Your task to perform on an android device: open a new tab in the chrome app Image 0: 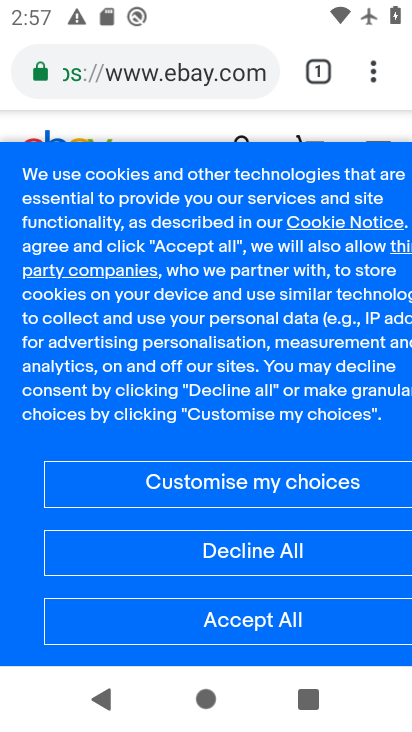
Step 0: press home button
Your task to perform on an android device: open a new tab in the chrome app Image 1: 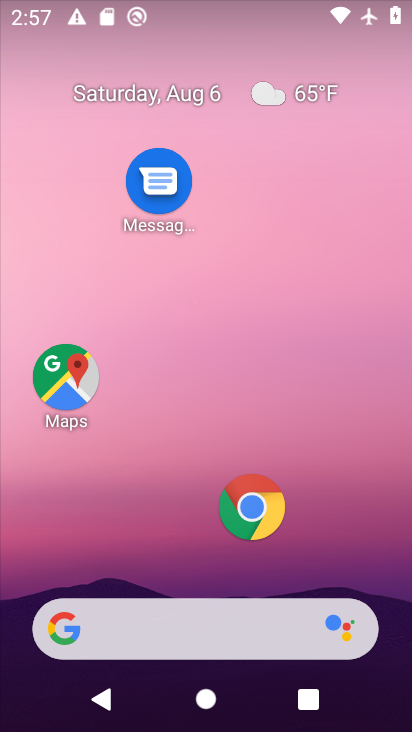
Step 1: drag from (189, 564) to (259, 102)
Your task to perform on an android device: open a new tab in the chrome app Image 2: 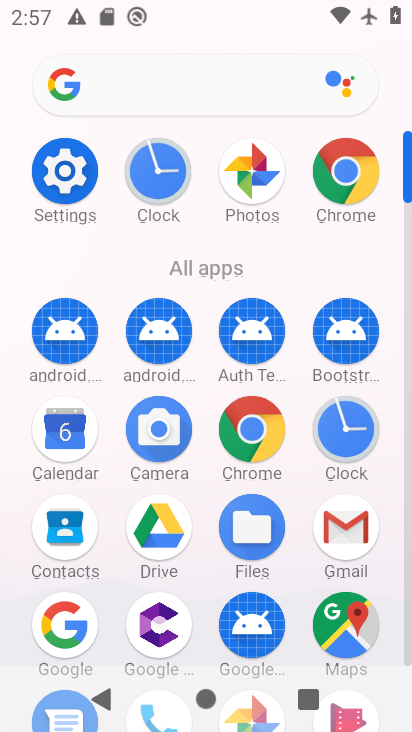
Step 2: click (259, 423)
Your task to perform on an android device: open a new tab in the chrome app Image 3: 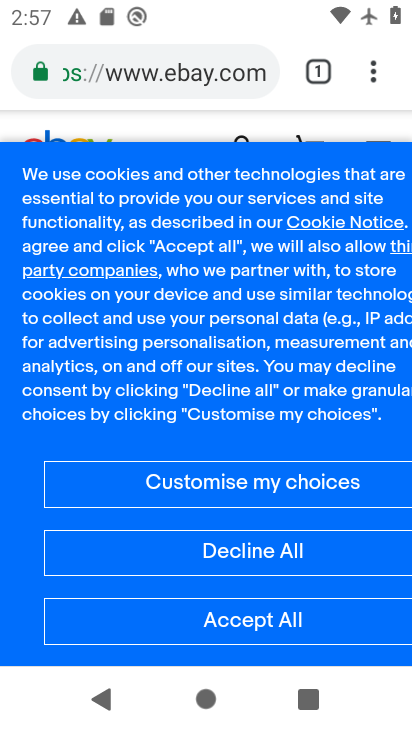
Step 3: click (373, 75)
Your task to perform on an android device: open a new tab in the chrome app Image 4: 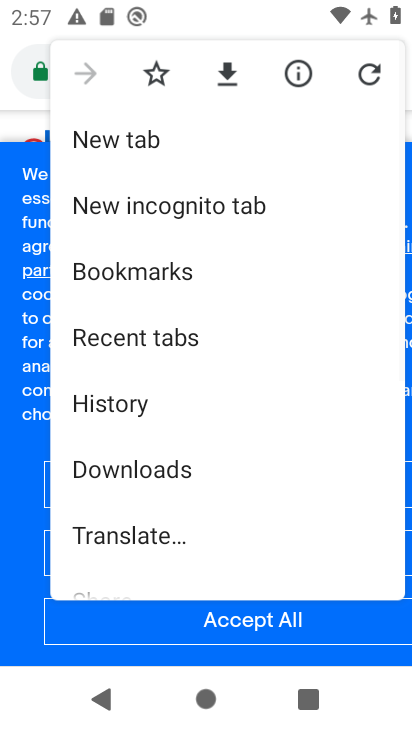
Step 4: click (146, 138)
Your task to perform on an android device: open a new tab in the chrome app Image 5: 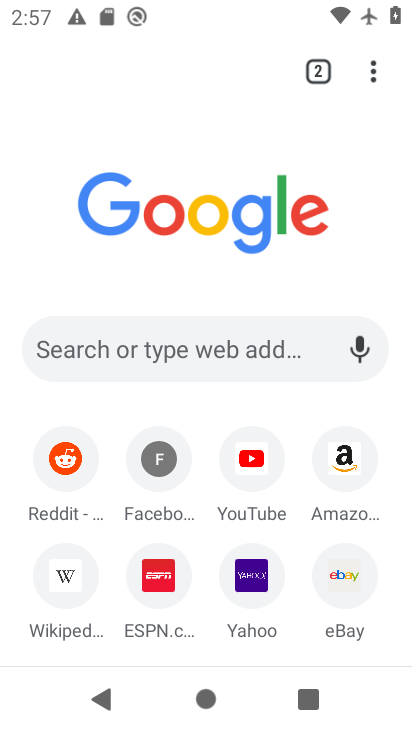
Step 5: task complete